Your task to perform on an android device: turn on data saver in the chrome app Image 0: 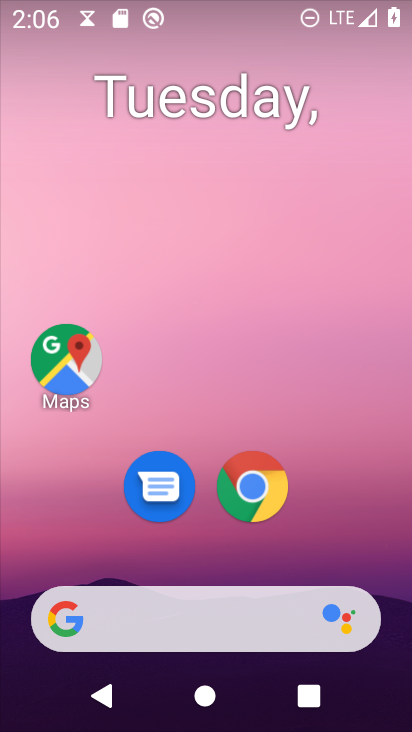
Step 0: drag from (200, 555) to (290, 156)
Your task to perform on an android device: turn on data saver in the chrome app Image 1: 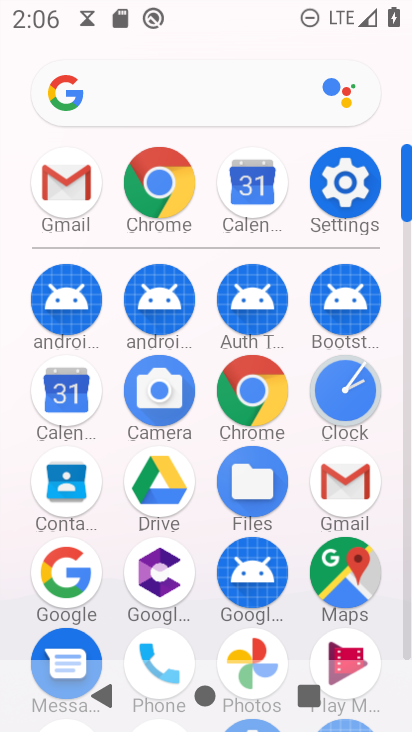
Step 1: click (267, 402)
Your task to perform on an android device: turn on data saver in the chrome app Image 2: 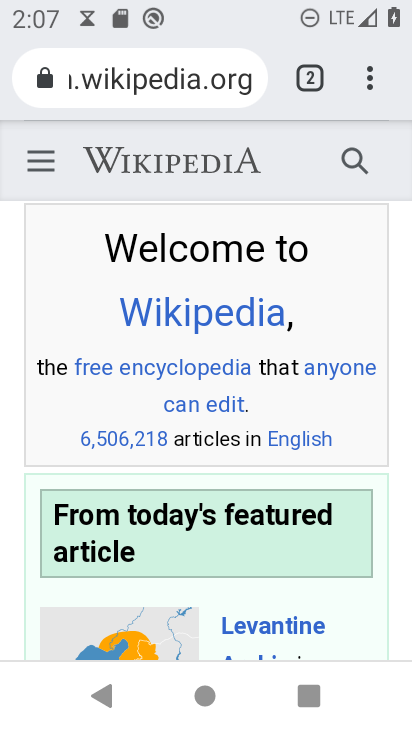
Step 2: click (367, 79)
Your task to perform on an android device: turn on data saver in the chrome app Image 3: 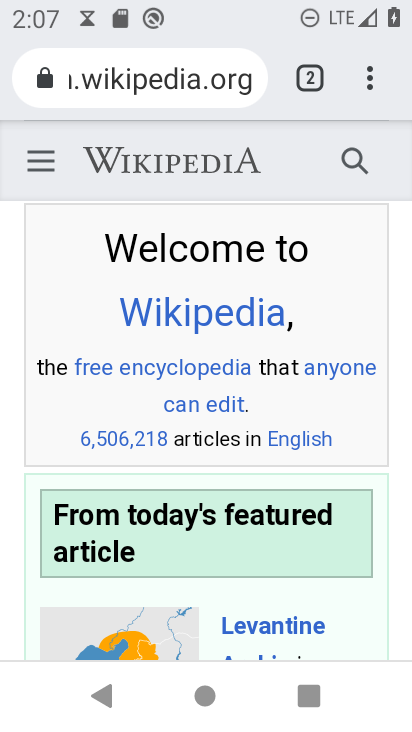
Step 3: click (367, 82)
Your task to perform on an android device: turn on data saver in the chrome app Image 4: 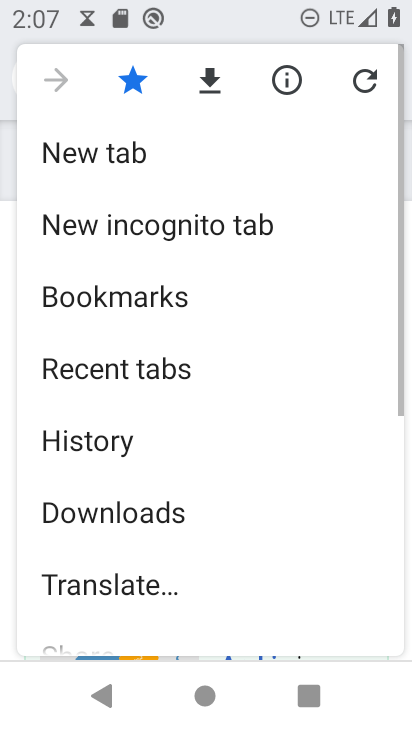
Step 4: drag from (221, 508) to (211, 150)
Your task to perform on an android device: turn on data saver in the chrome app Image 5: 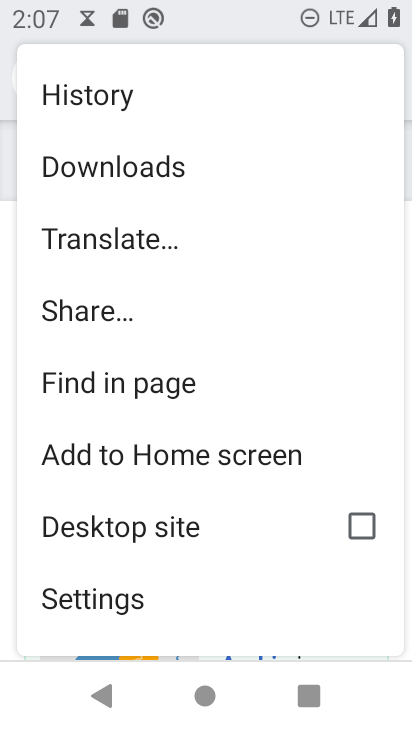
Step 5: click (160, 601)
Your task to perform on an android device: turn on data saver in the chrome app Image 6: 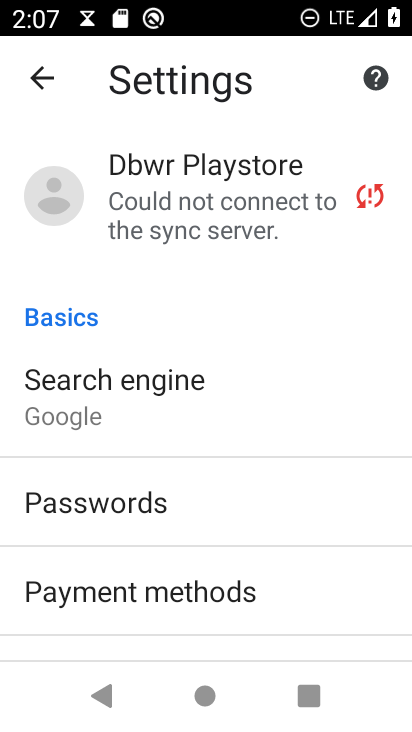
Step 6: drag from (193, 602) to (200, 254)
Your task to perform on an android device: turn on data saver in the chrome app Image 7: 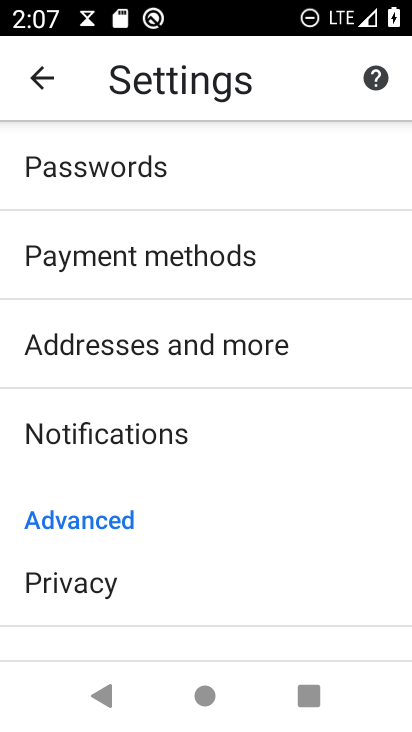
Step 7: drag from (191, 592) to (179, 233)
Your task to perform on an android device: turn on data saver in the chrome app Image 8: 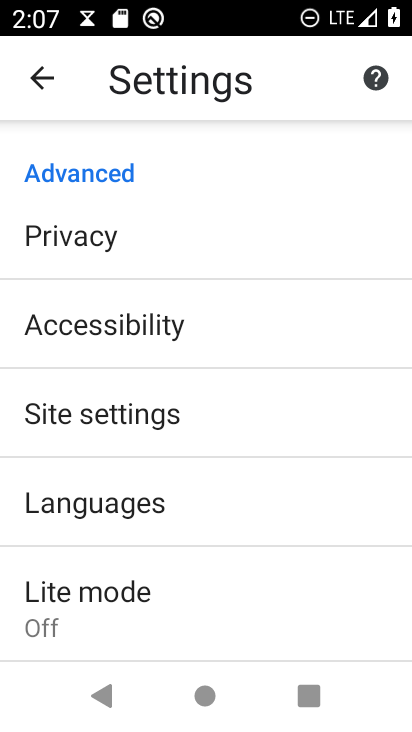
Step 8: click (124, 623)
Your task to perform on an android device: turn on data saver in the chrome app Image 9: 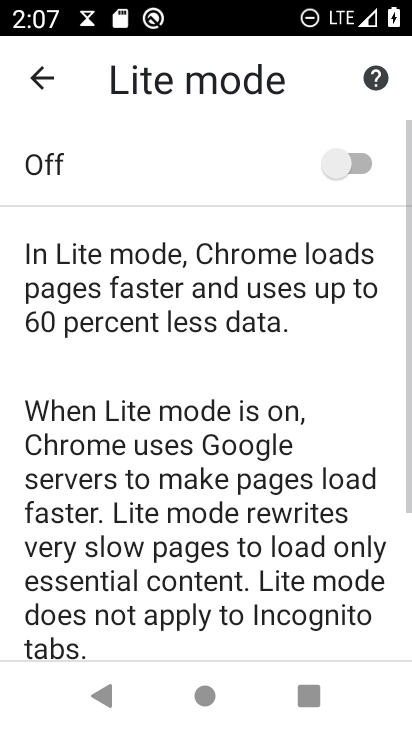
Step 9: click (350, 173)
Your task to perform on an android device: turn on data saver in the chrome app Image 10: 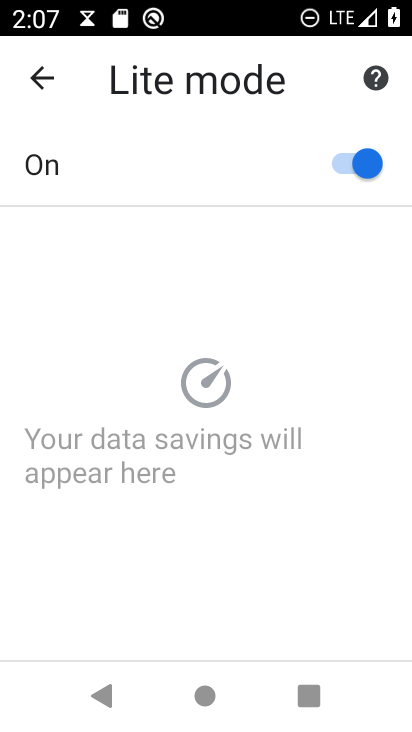
Step 10: task complete